Your task to perform on an android device: Open Google Maps and go to "Timeline" Image 0: 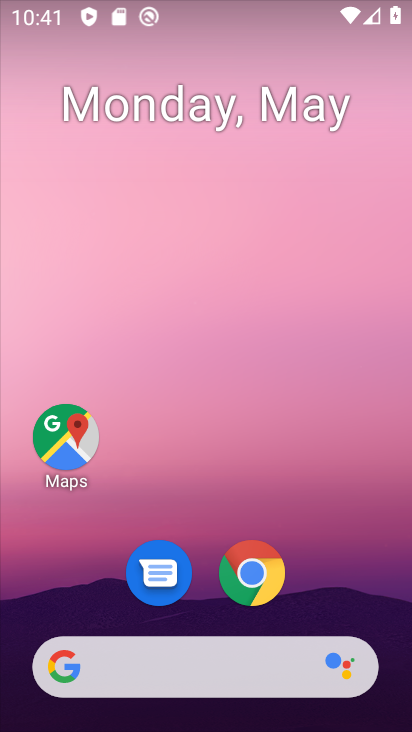
Step 0: click (76, 440)
Your task to perform on an android device: Open Google Maps and go to "Timeline" Image 1: 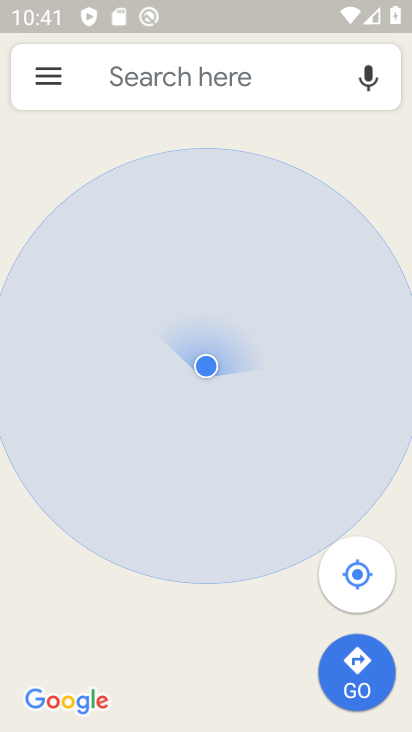
Step 1: click (45, 82)
Your task to perform on an android device: Open Google Maps and go to "Timeline" Image 2: 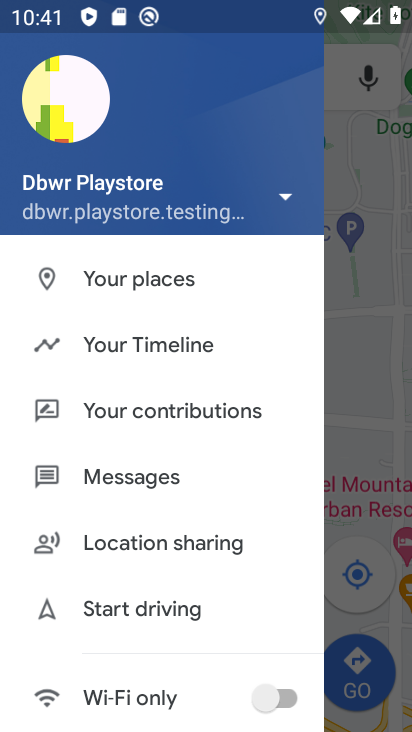
Step 2: click (105, 321)
Your task to perform on an android device: Open Google Maps and go to "Timeline" Image 3: 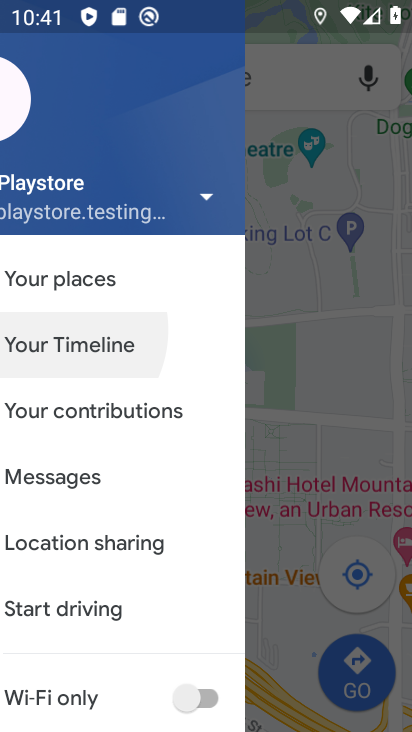
Step 3: click (104, 341)
Your task to perform on an android device: Open Google Maps and go to "Timeline" Image 4: 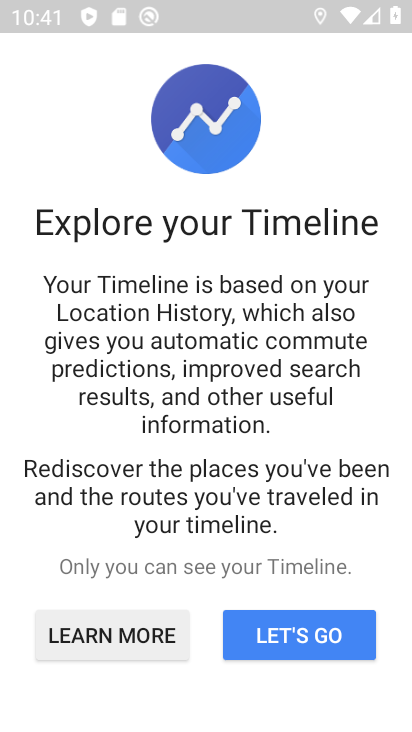
Step 4: click (354, 640)
Your task to perform on an android device: Open Google Maps and go to "Timeline" Image 5: 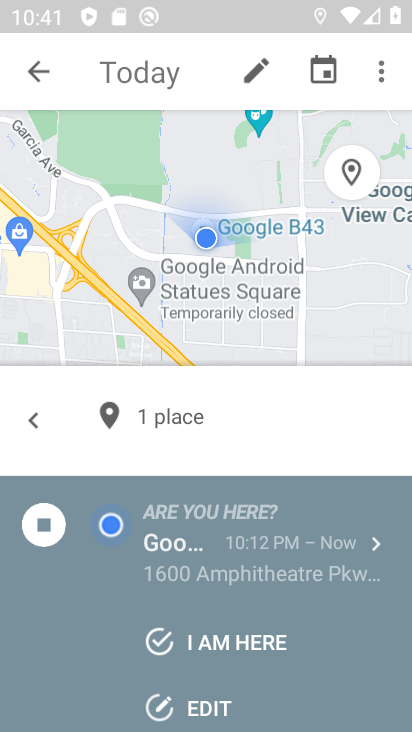
Step 5: task complete